Your task to perform on an android device: turn on wifi Image 0: 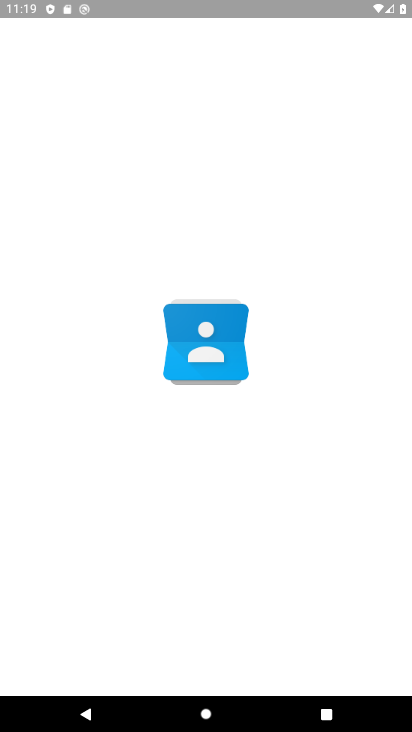
Step 0: drag from (207, 613) to (128, 138)
Your task to perform on an android device: turn on wifi Image 1: 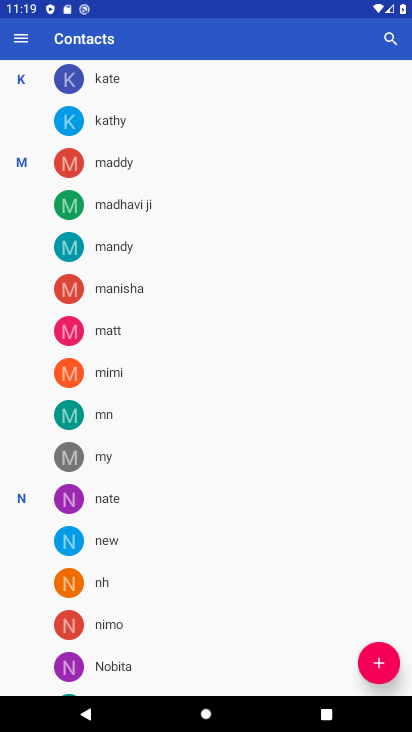
Step 1: press home button
Your task to perform on an android device: turn on wifi Image 2: 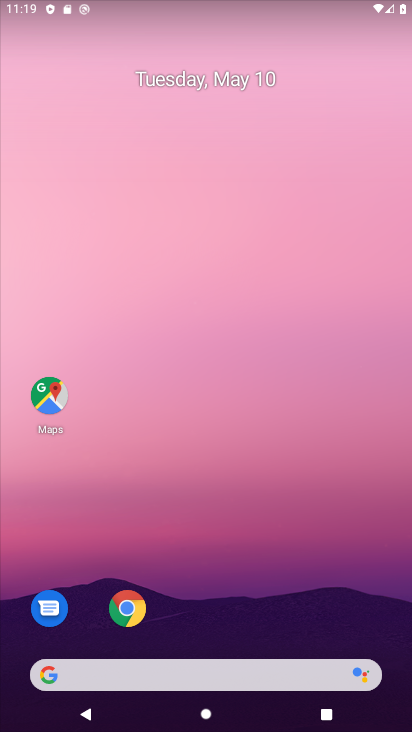
Step 2: drag from (206, 576) to (111, 127)
Your task to perform on an android device: turn on wifi Image 3: 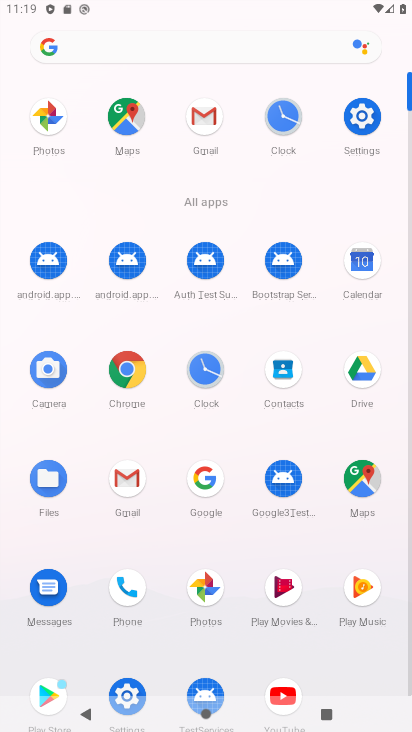
Step 3: click (364, 107)
Your task to perform on an android device: turn on wifi Image 4: 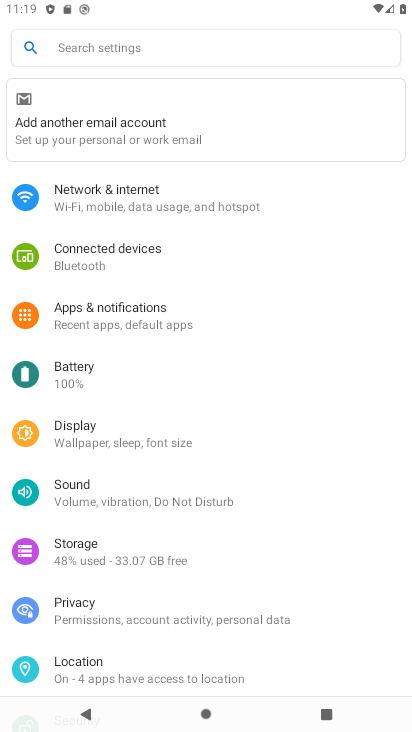
Step 4: click (144, 206)
Your task to perform on an android device: turn on wifi Image 5: 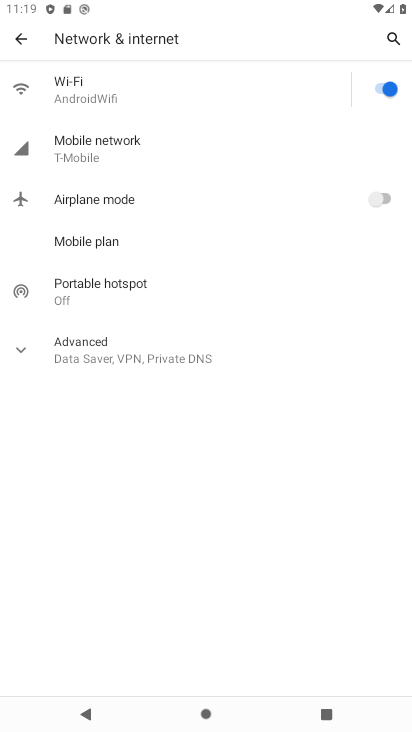
Step 5: task complete